Your task to perform on an android device: check storage Image 0: 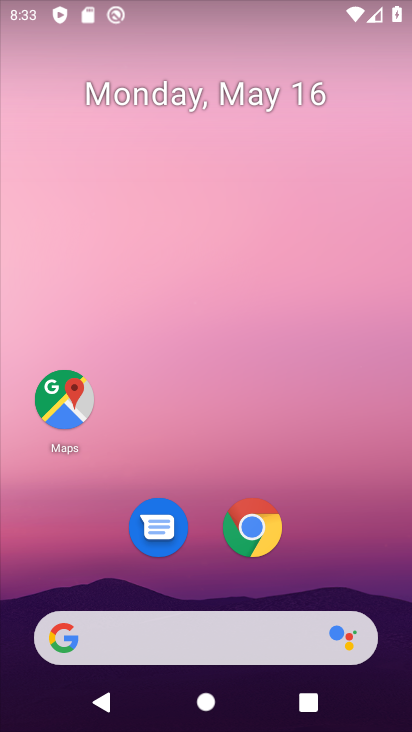
Step 0: drag from (376, 526) to (371, 327)
Your task to perform on an android device: check storage Image 1: 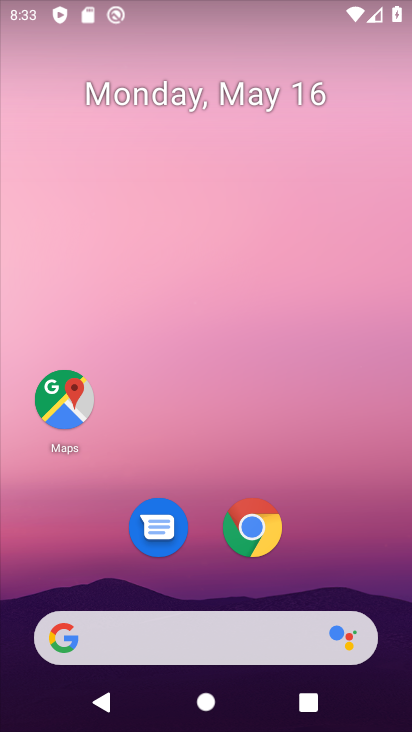
Step 1: drag from (399, 643) to (404, 371)
Your task to perform on an android device: check storage Image 2: 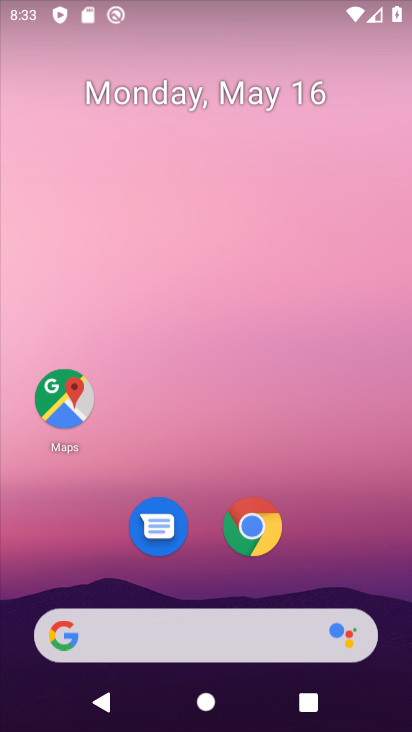
Step 2: drag from (391, 654) to (402, 243)
Your task to perform on an android device: check storage Image 3: 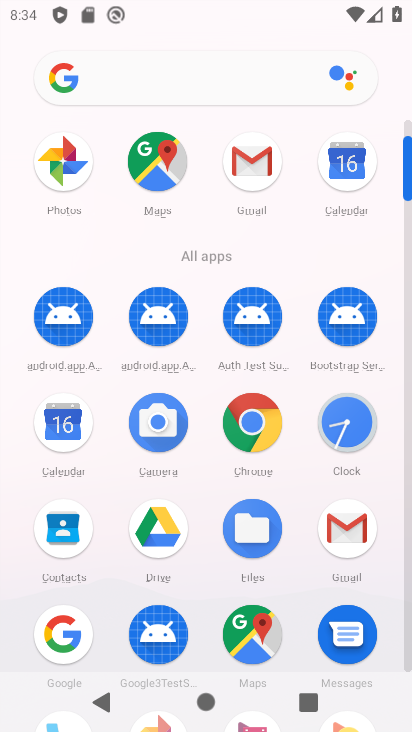
Step 3: drag from (404, 149) to (408, 111)
Your task to perform on an android device: check storage Image 4: 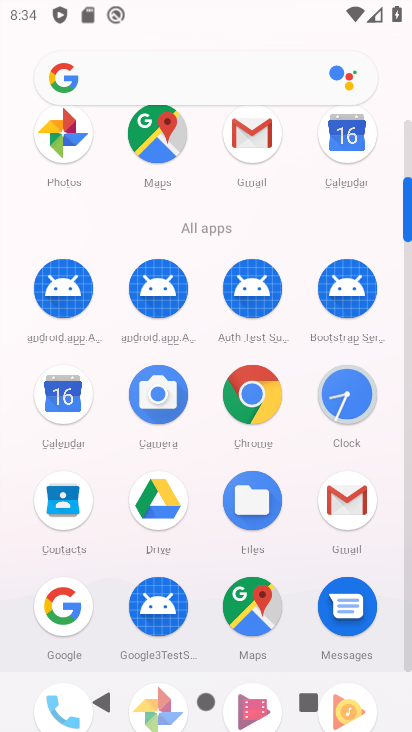
Step 4: drag from (408, 185) to (411, 127)
Your task to perform on an android device: check storage Image 5: 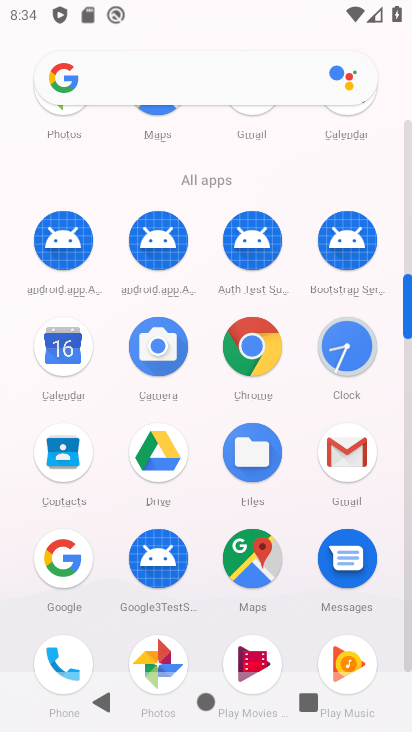
Step 5: drag from (408, 266) to (405, 189)
Your task to perform on an android device: check storage Image 6: 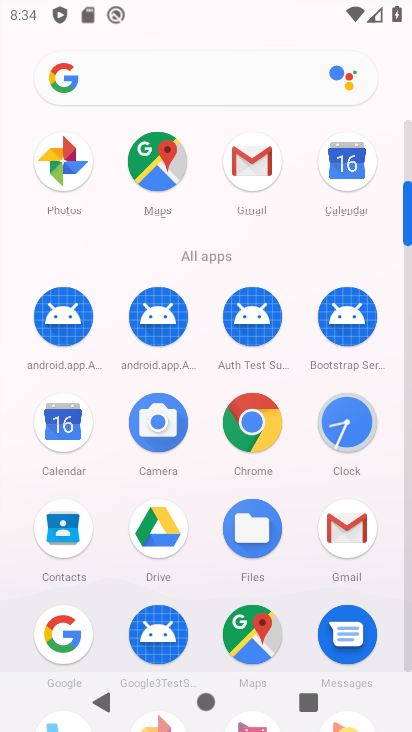
Step 6: drag from (409, 193) to (407, 120)
Your task to perform on an android device: check storage Image 7: 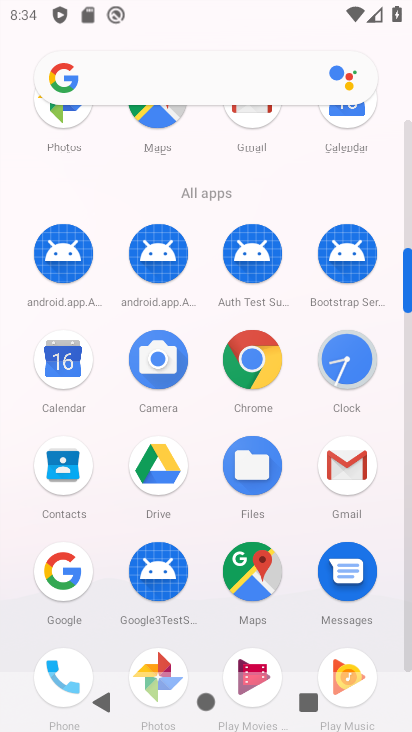
Step 7: click (409, 262)
Your task to perform on an android device: check storage Image 8: 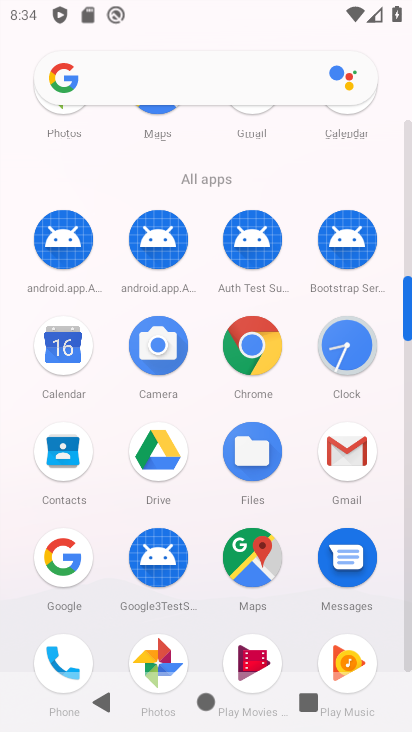
Step 8: drag from (207, 553) to (172, 317)
Your task to perform on an android device: check storage Image 9: 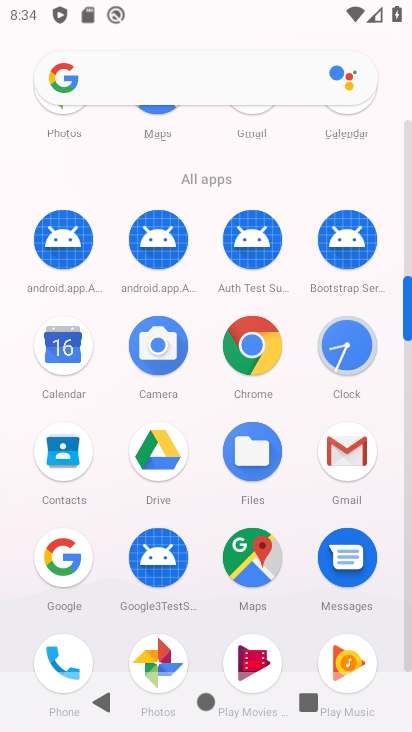
Step 9: drag from (206, 599) to (206, 331)
Your task to perform on an android device: check storage Image 10: 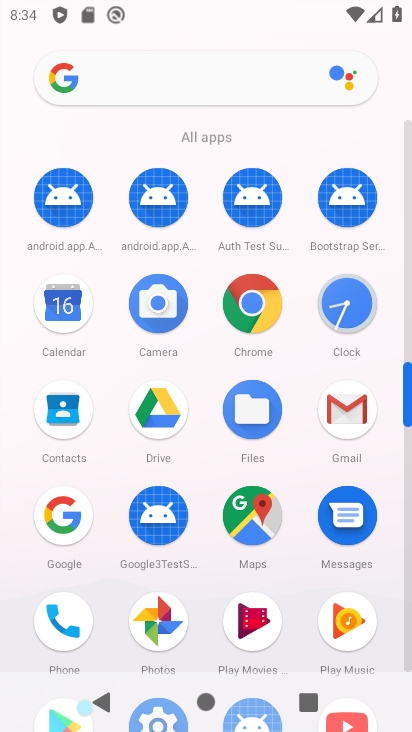
Step 10: drag from (202, 550) to (179, 329)
Your task to perform on an android device: check storage Image 11: 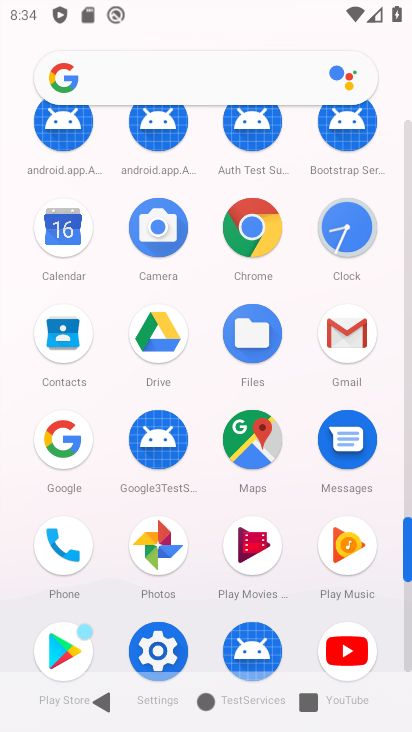
Step 11: click (173, 637)
Your task to perform on an android device: check storage Image 12: 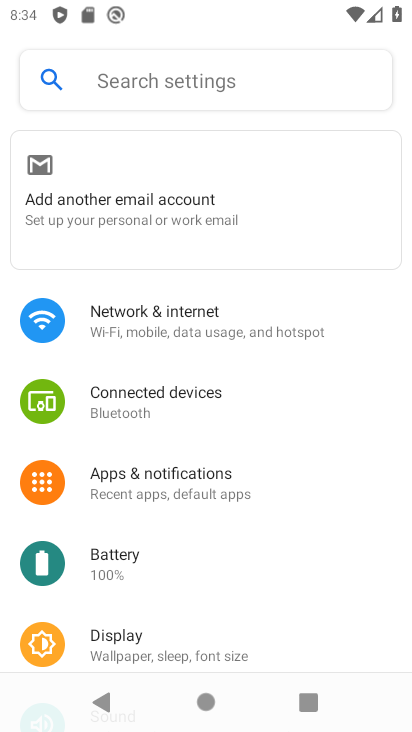
Step 12: drag from (332, 505) to (333, 446)
Your task to perform on an android device: check storage Image 13: 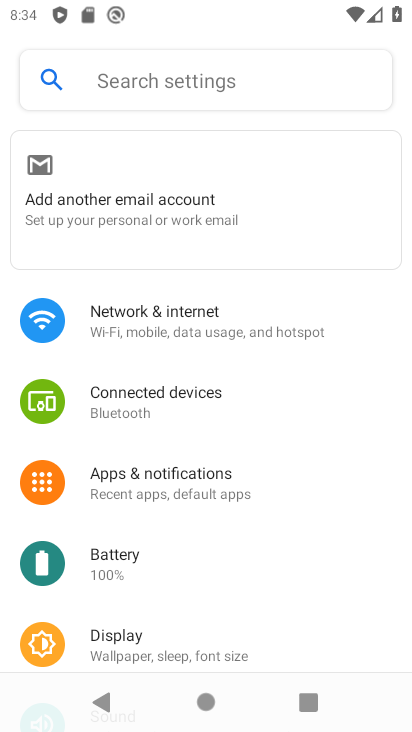
Step 13: drag from (351, 645) to (379, 401)
Your task to perform on an android device: check storage Image 14: 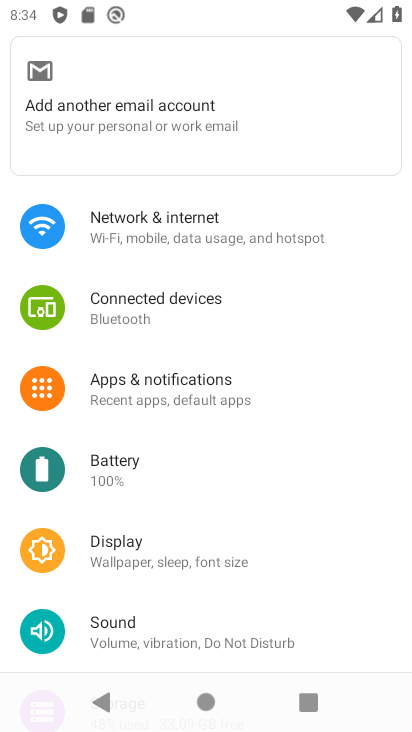
Step 14: drag from (354, 644) to (368, 430)
Your task to perform on an android device: check storage Image 15: 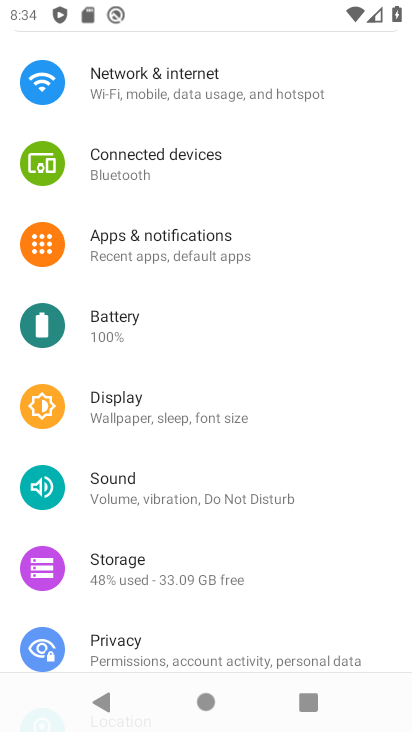
Step 15: click (150, 562)
Your task to perform on an android device: check storage Image 16: 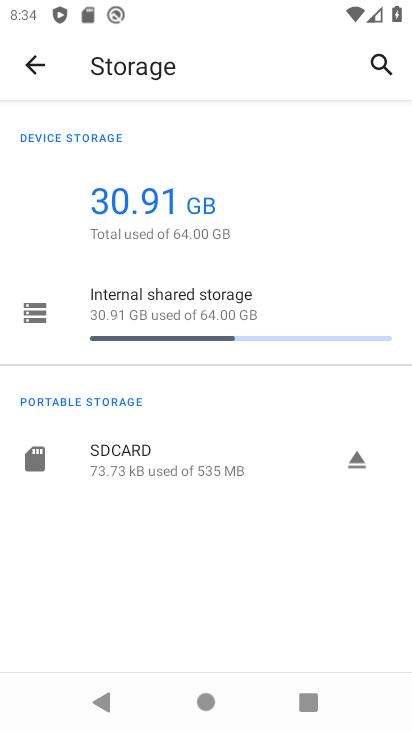
Step 16: task complete